Your task to perform on an android device: change the clock display to show seconds Image 0: 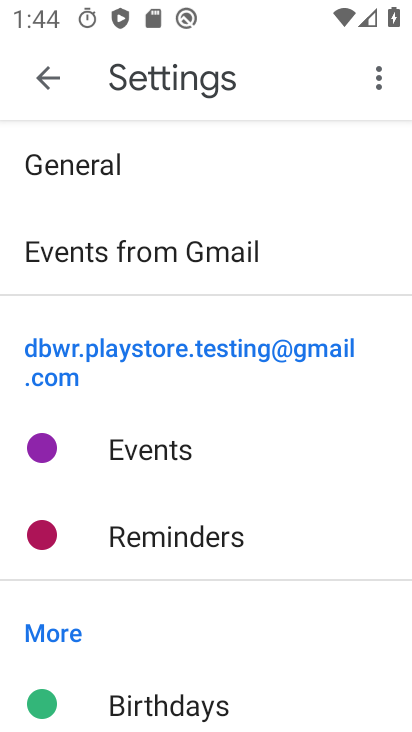
Step 0: press home button
Your task to perform on an android device: change the clock display to show seconds Image 1: 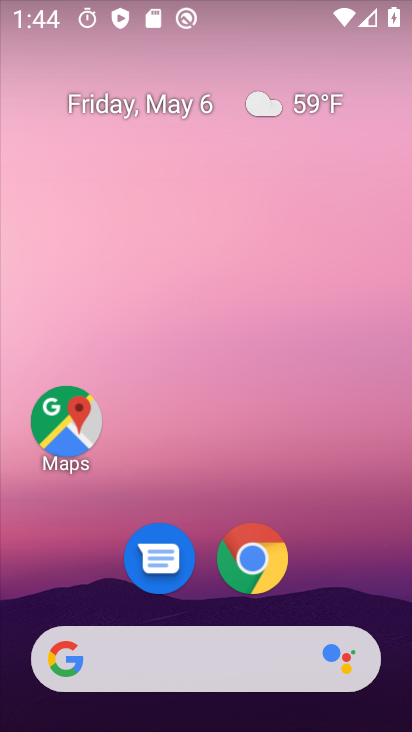
Step 1: drag from (223, 699) to (177, 107)
Your task to perform on an android device: change the clock display to show seconds Image 2: 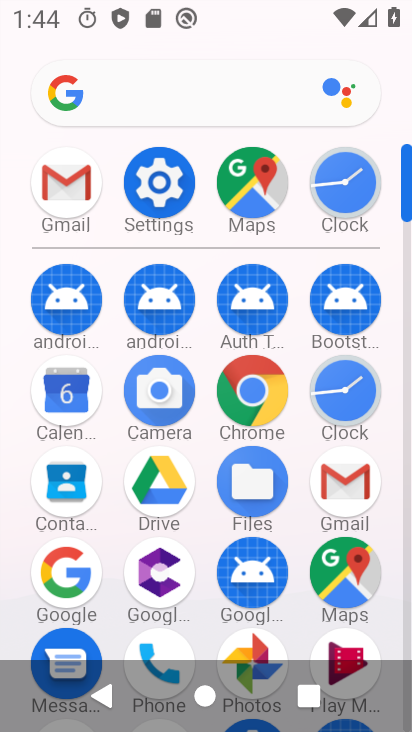
Step 2: click (344, 403)
Your task to perform on an android device: change the clock display to show seconds Image 3: 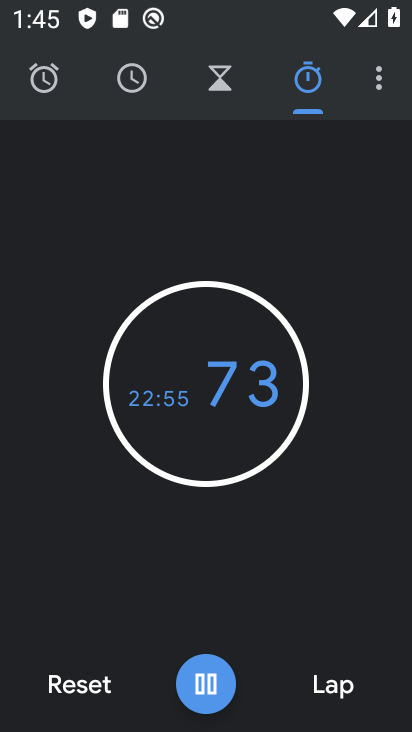
Step 3: click (377, 84)
Your task to perform on an android device: change the clock display to show seconds Image 4: 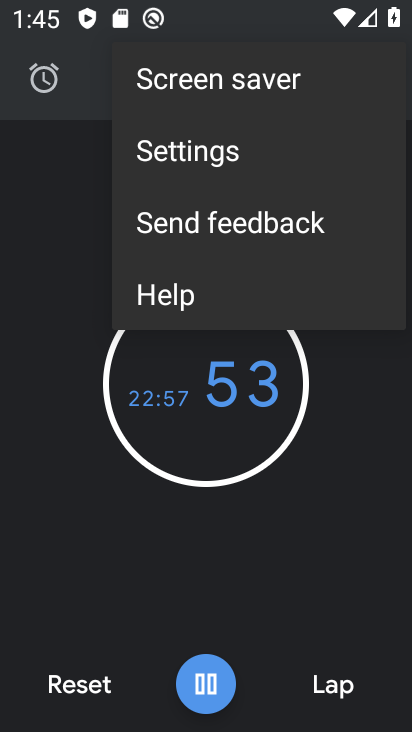
Step 4: click (213, 146)
Your task to perform on an android device: change the clock display to show seconds Image 5: 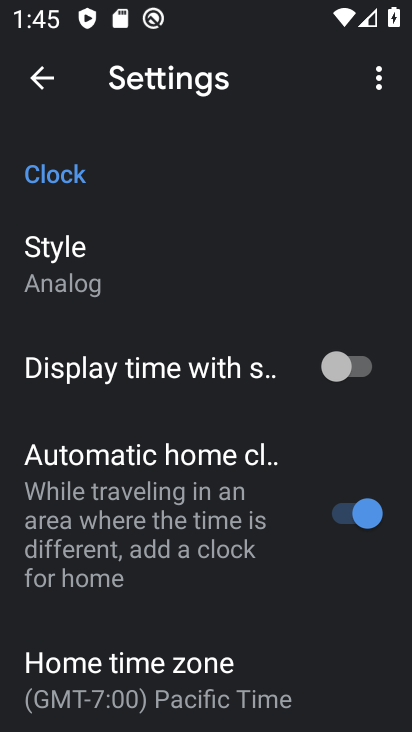
Step 5: drag from (148, 628) to (155, 320)
Your task to perform on an android device: change the clock display to show seconds Image 6: 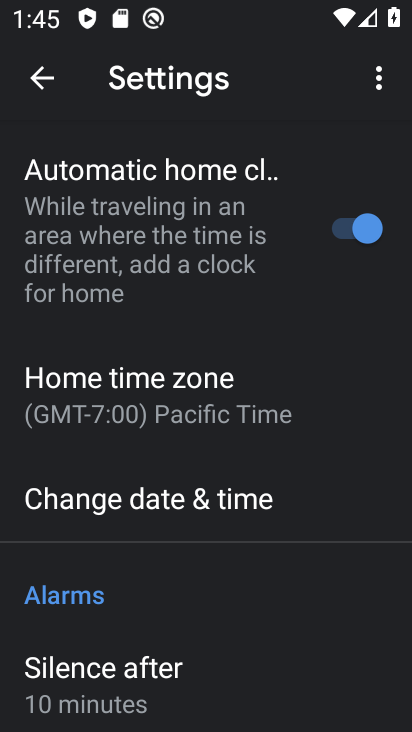
Step 6: drag from (144, 147) to (141, 440)
Your task to perform on an android device: change the clock display to show seconds Image 7: 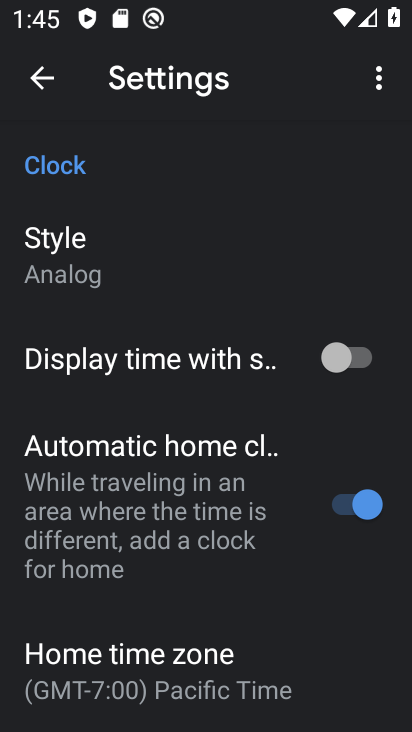
Step 7: click (350, 355)
Your task to perform on an android device: change the clock display to show seconds Image 8: 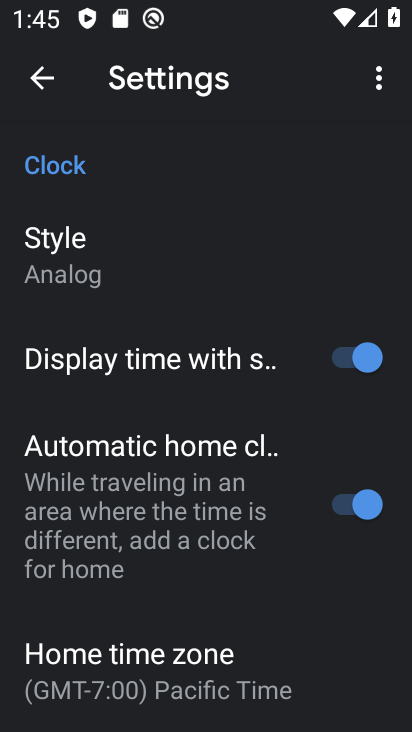
Step 8: task complete